Your task to perform on an android device: Go to display settings Image 0: 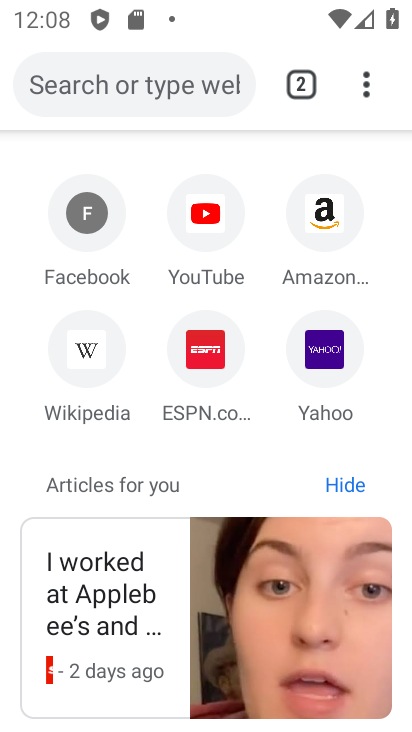
Step 0: press home button
Your task to perform on an android device: Go to display settings Image 1: 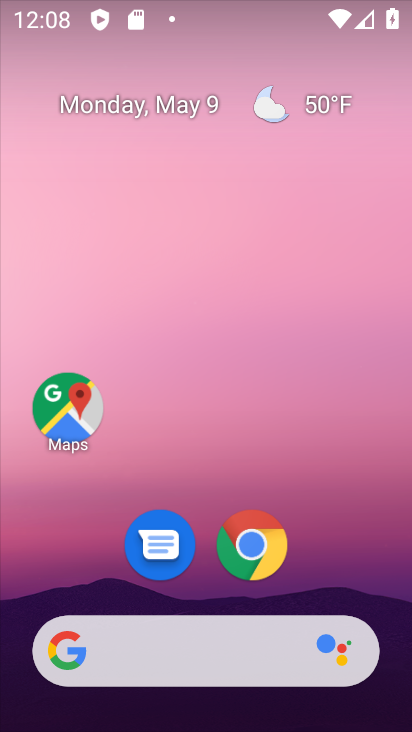
Step 1: drag from (190, 584) to (194, 128)
Your task to perform on an android device: Go to display settings Image 2: 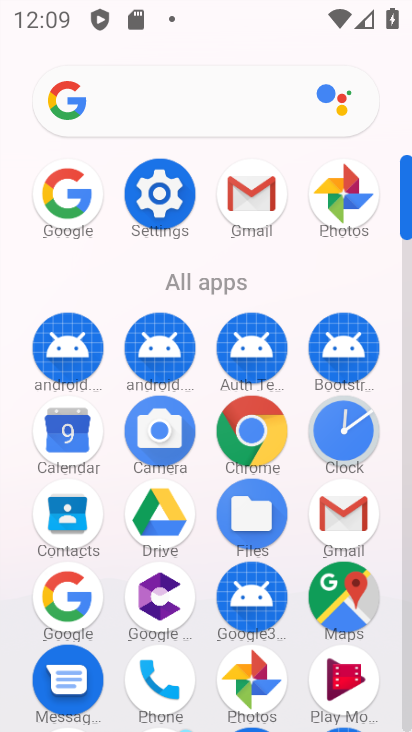
Step 2: click (167, 167)
Your task to perform on an android device: Go to display settings Image 3: 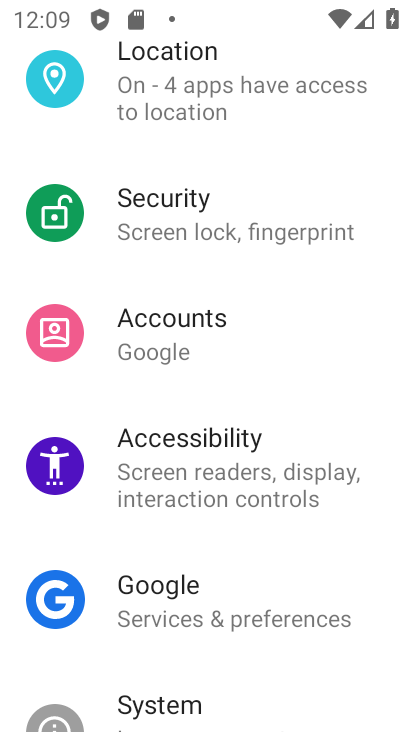
Step 3: drag from (284, 212) to (278, 506)
Your task to perform on an android device: Go to display settings Image 4: 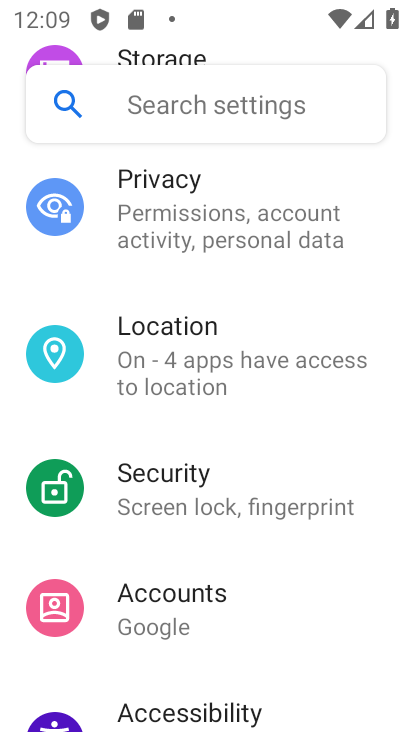
Step 4: drag from (245, 248) to (233, 565)
Your task to perform on an android device: Go to display settings Image 5: 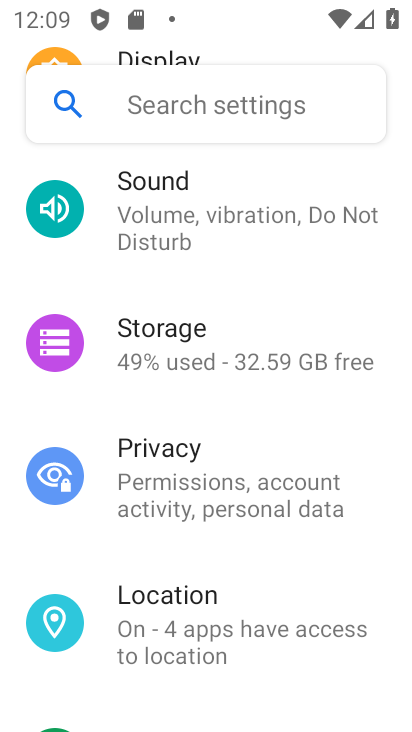
Step 5: drag from (257, 223) to (256, 525)
Your task to perform on an android device: Go to display settings Image 6: 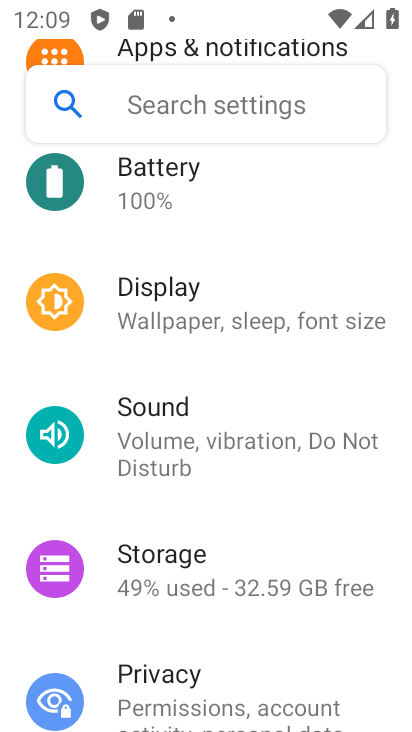
Step 6: drag from (238, 202) to (238, 510)
Your task to perform on an android device: Go to display settings Image 7: 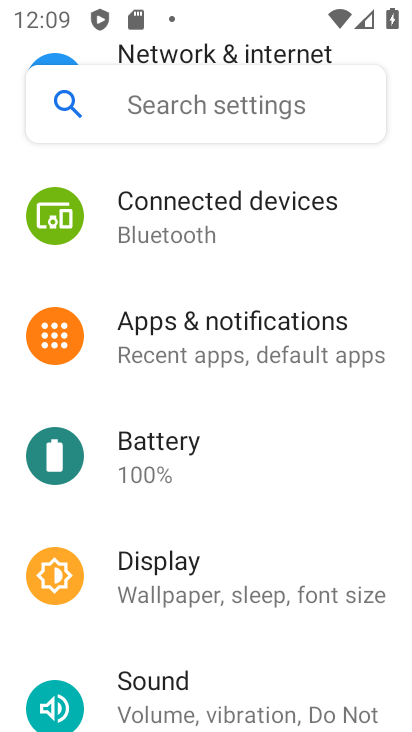
Step 7: drag from (215, 245) to (226, 592)
Your task to perform on an android device: Go to display settings Image 8: 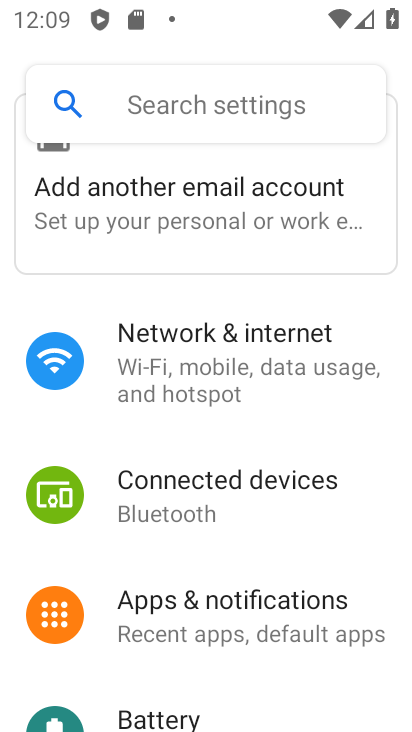
Step 8: drag from (175, 584) to (185, 353)
Your task to perform on an android device: Go to display settings Image 9: 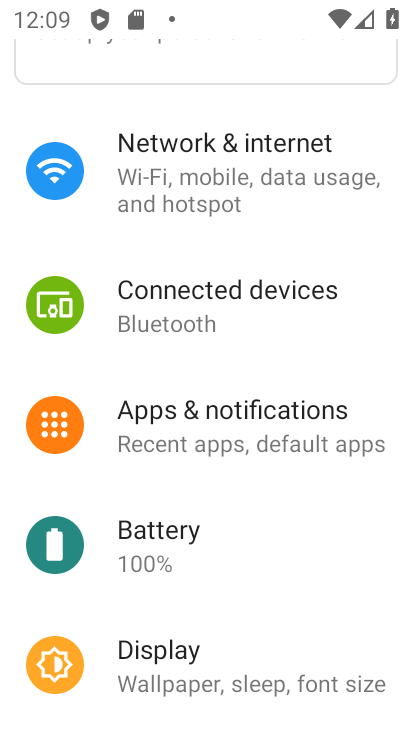
Step 9: click (188, 641)
Your task to perform on an android device: Go to display settings Image 10: 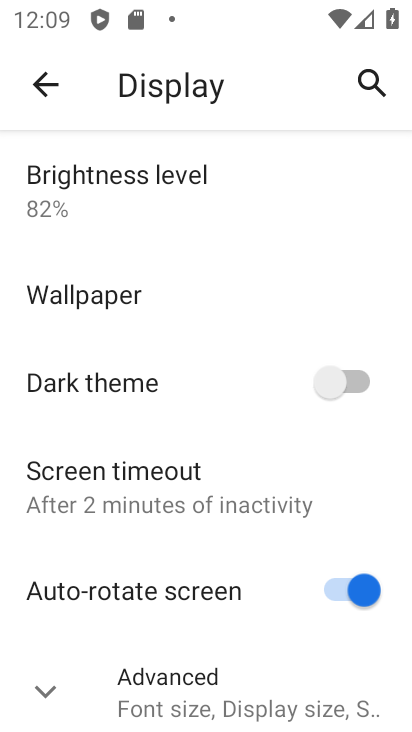
Step 10: task complete